Your task to perform on an android device: change the clock display to show seconds Image 0: 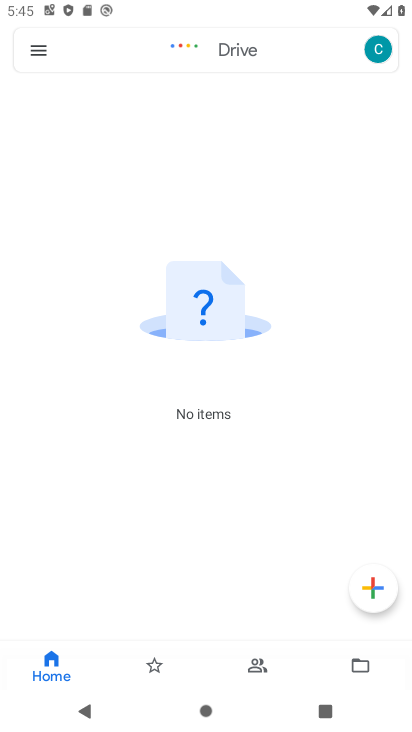
Step 0: press home button
Your task to perform on an android device: change the clock display to show seconds Image 1: 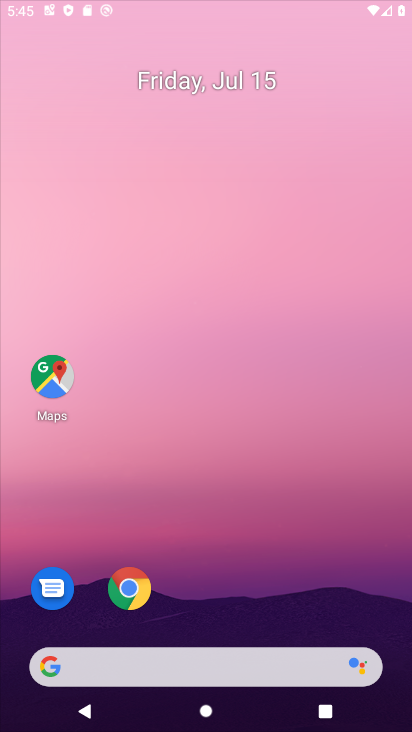
Step 1: drag from (290, 673) to (328, 12)
Your task to perform on an android device: change the clock display to show seconds Image 2: 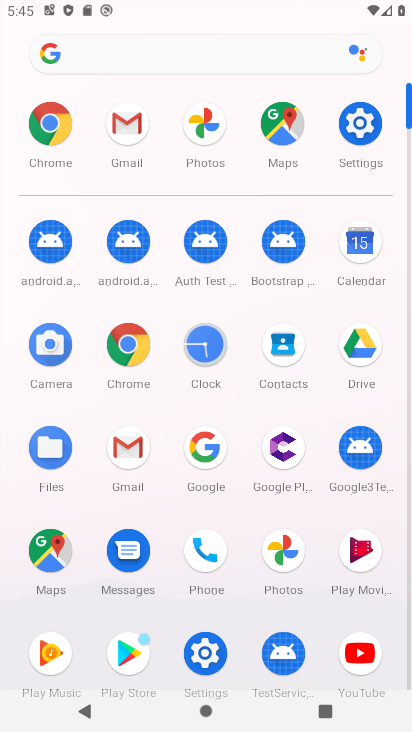
Step 2: click (201, 348)
Your task to perform on an android device: change the clock display to show seconds Image 3: 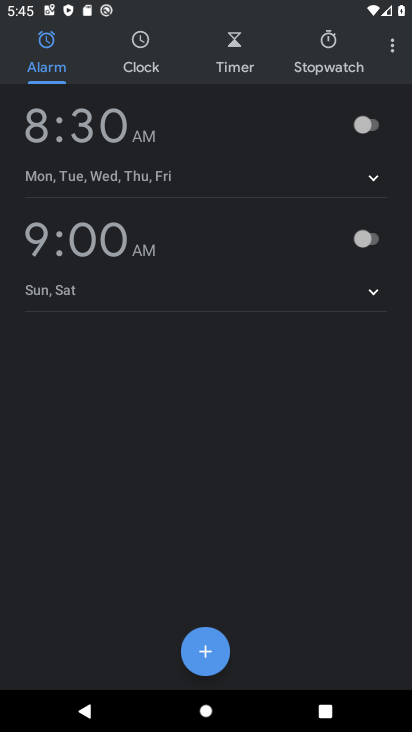
Step 3: click (388, 44)
Your task to perform on an android device: change the clock display to show seconds Image 4: 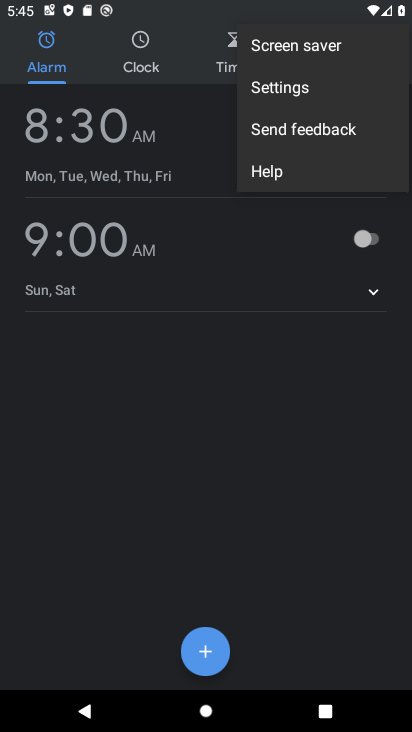
Step 4: click (304, 94)
Your task to perform on an android device: change the clock display to show seconds Image 5: 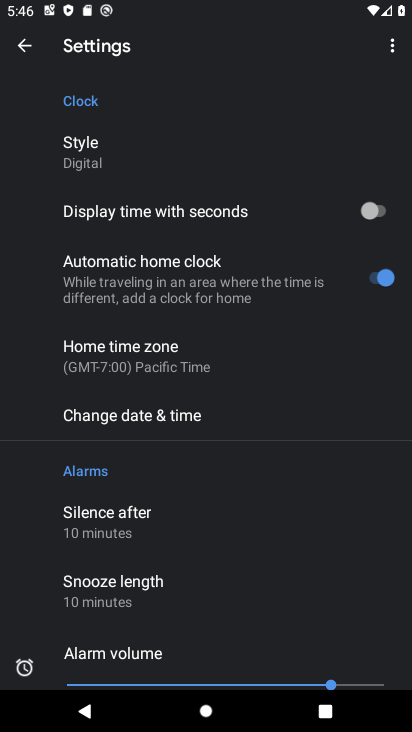
Step 5: click (385, 215)
Your task to perform on an android device: change the clock display to show seconds Image 6: 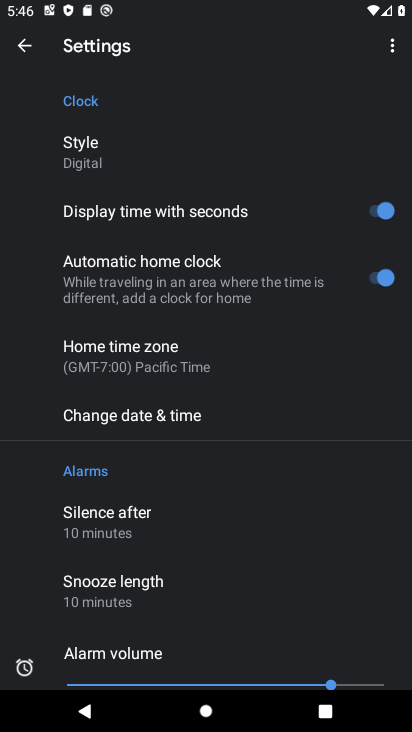
Step 6: task complete